Your task to perform on an android device: Open location settings Image 0: 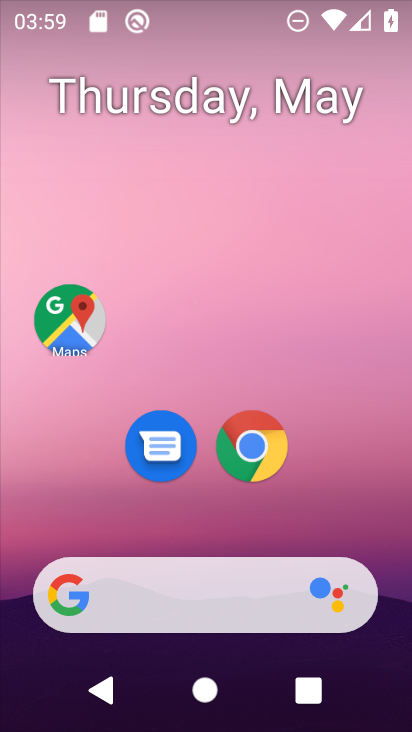
Step 0: drag from (362, 556) to (345, 9)
Your task to perform on an android device: Open location settings Image 1: 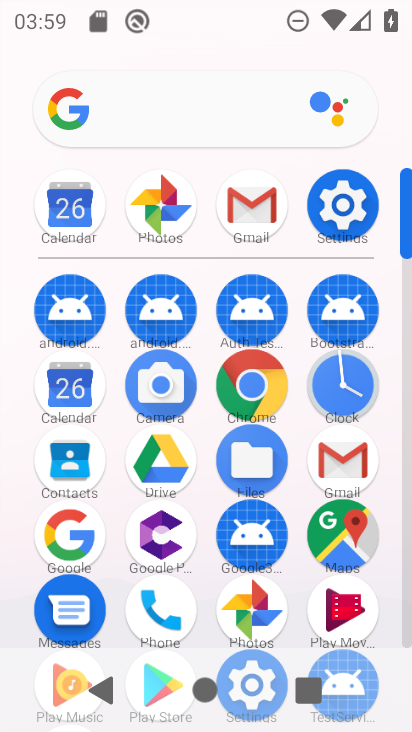
Step 1: click (337, 212)
Your task to perform on an android device: Open location settings Image 2: 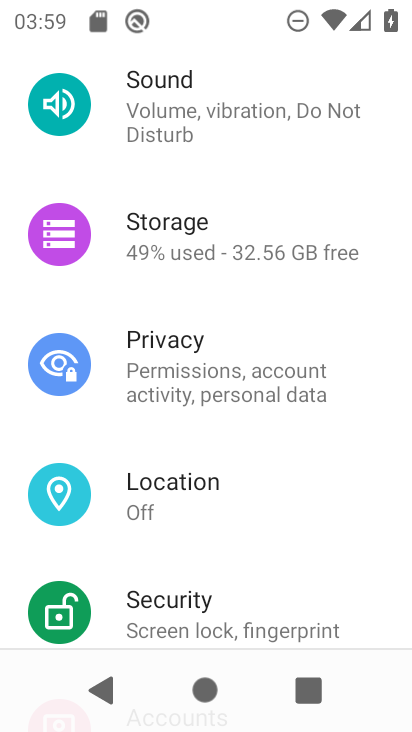
Step 2: click (148, 495)
Your task to perform on an android device: Open location settings Image 3: 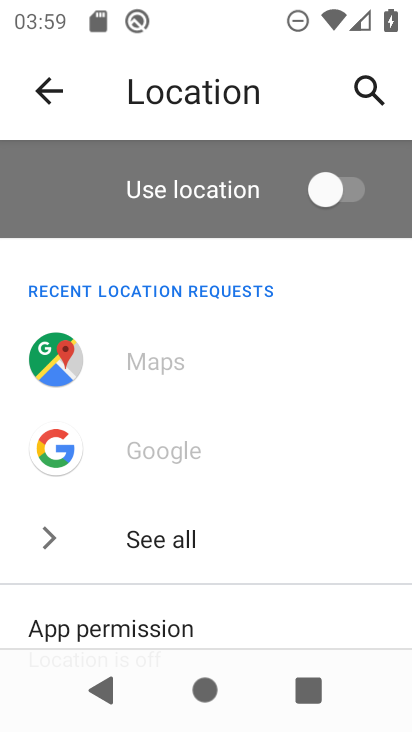
Step 3: task complete